Your task to perform on an android device: toggle data saver in the chrome app Image 0: 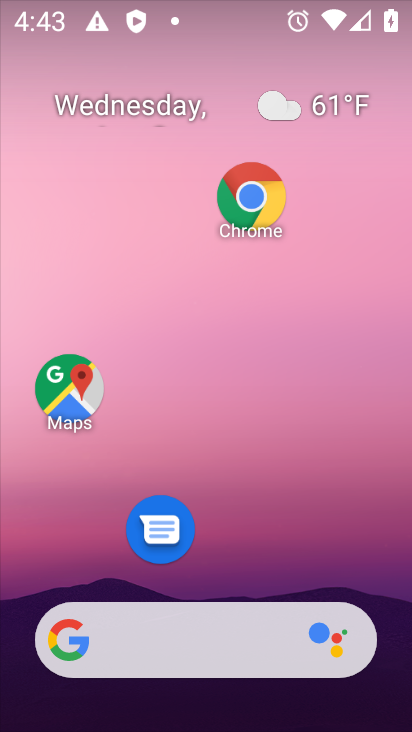
Step 0: click (263, 171)
Your task to perform on an android device: toggle data saver in the chrome app Image 1: 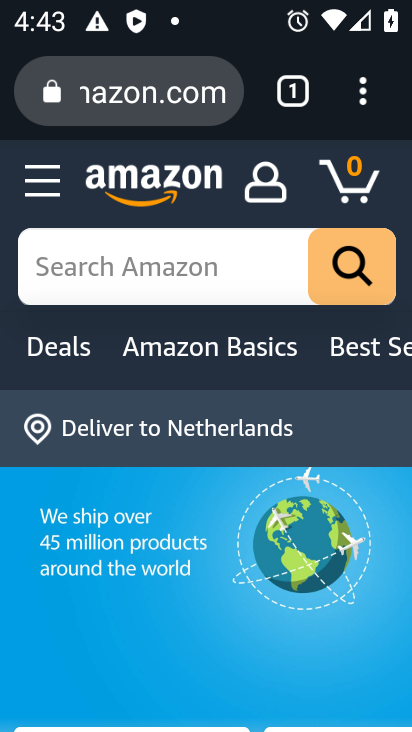
Step 1: click (363, 85)
Your task to perform on an android device: toggle data saver in the chrome app Image 2: 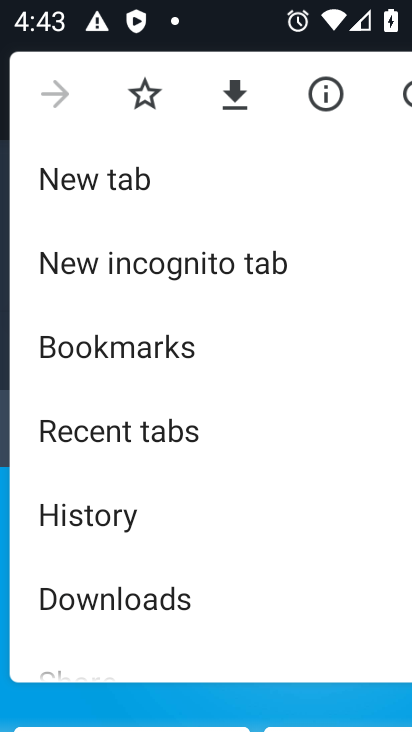
Step 2: drag from (171, 479) to (174, 277)
Your task to perform on an android device: toggle data saver in the chrome app Image 3: 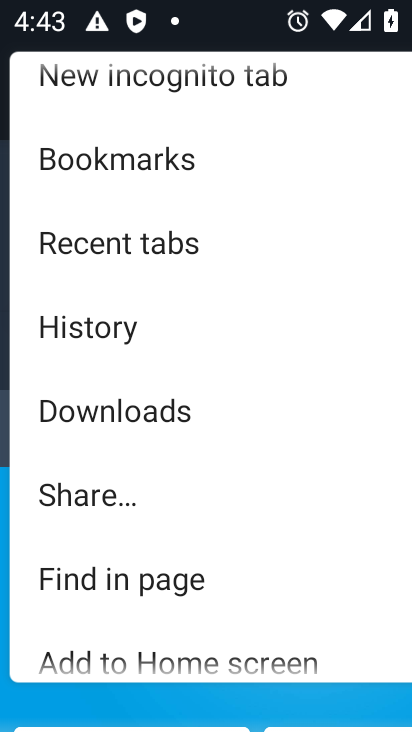
Step 3: drag from (95, 561) to (140, 131)
Your task to perform on an android device: toggle data saver in the chrome app Image 4: 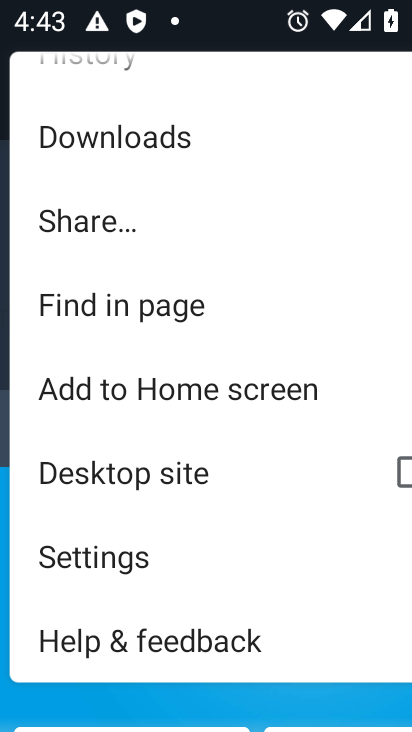
Step 4: click (114, 572)
Your task to perform on an android device: toggle data saver in the chrome app Image 5: 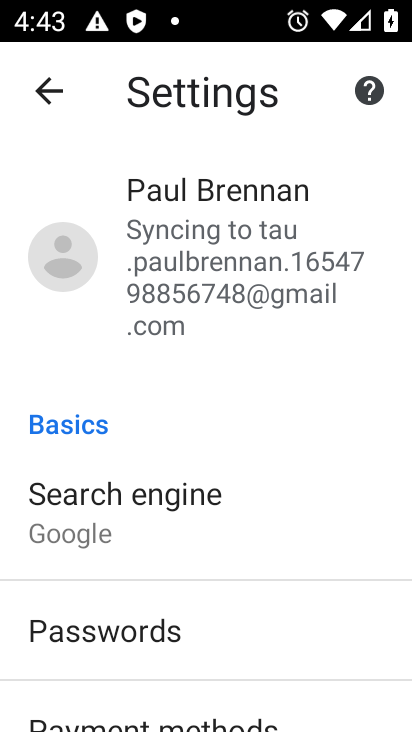
Step 5: drag from (180, 573) to (213, 284)
Your task to perform on an android device: toggle data saver in the chrome app Image 6: 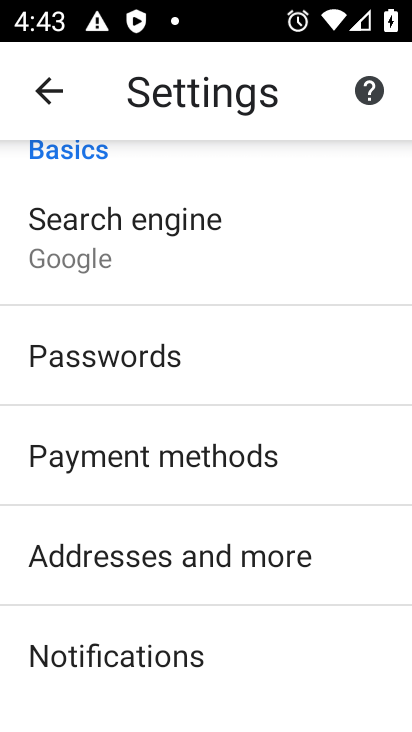
Step 6: drag from (183, 487) to (214, 215)
Your task to perform on an android device: toggle data saver in the chrome app Image 7: 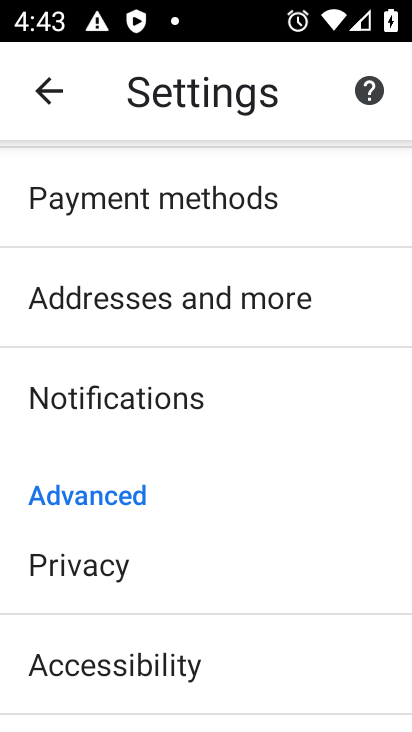
Step 7: drag from (171, 542) to (219, 119)
Your task to perform on an android device: toggle data saver in the chrome app Image 8: 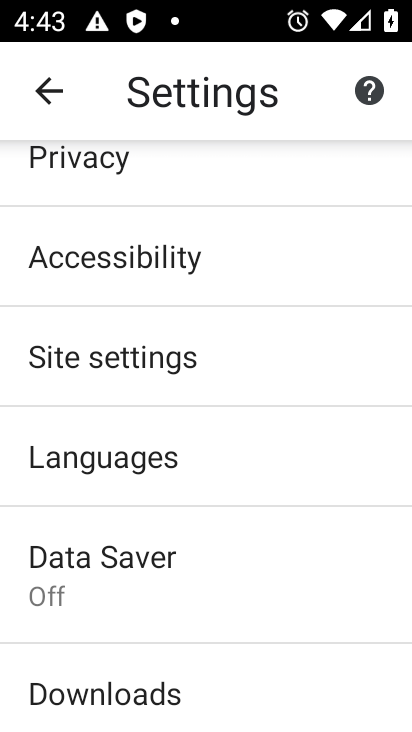
Step 8: click (130, 582)
Your task to perform on an android device: toggle data saver in the chrome app Image 9: 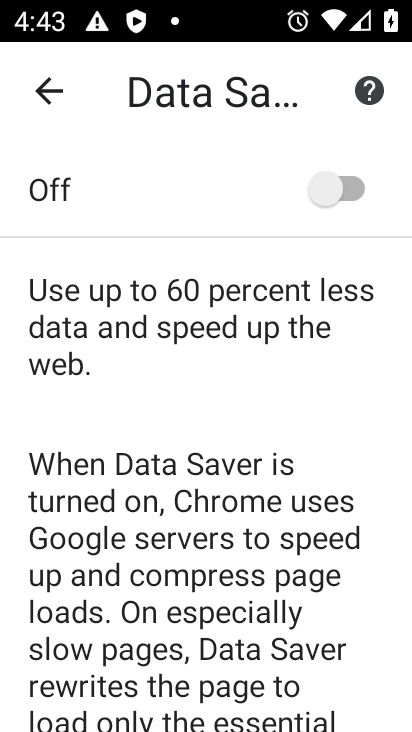
Step 9: click (377, 195)
Your task to perform on an android device: toggle data saver in the chrome app Image 10: 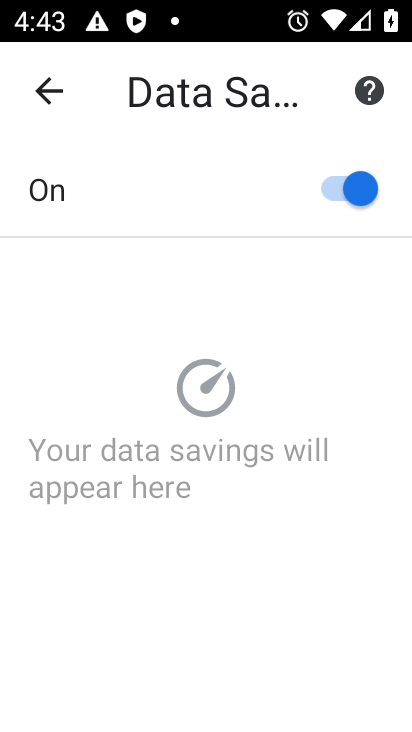
Step 10: task complete